Your task to perform on an android device: check battery use Image 0: 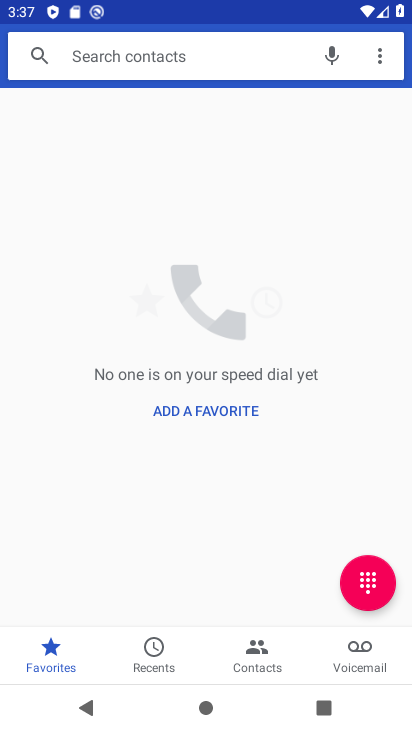
Step 0: press home button
Your task to perform on an android device: check battery use Image 1: 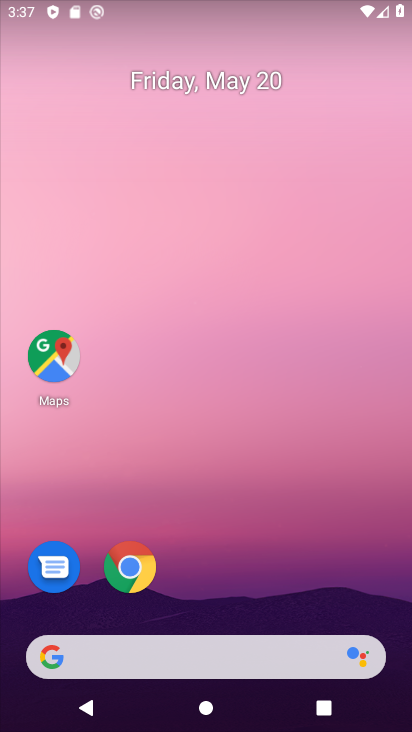
Step 1: drag from (253, 23) to (220, 660)
Your task to perform on an android device: check battery use Image 2: 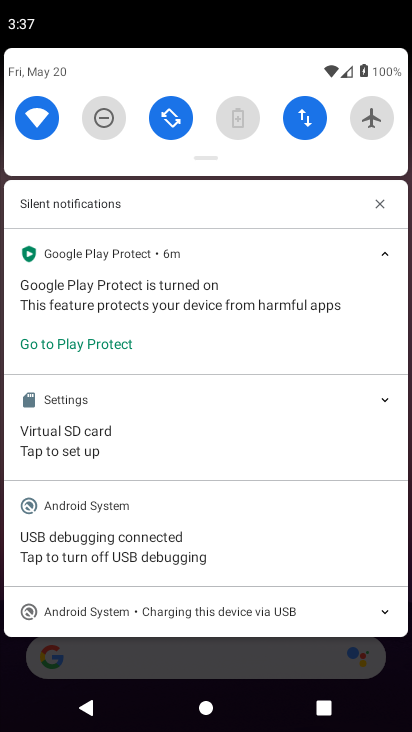
Step 2: drag from (268, 95) to (287, 604)
Your task to perform on an android device: check battery use Image 3: 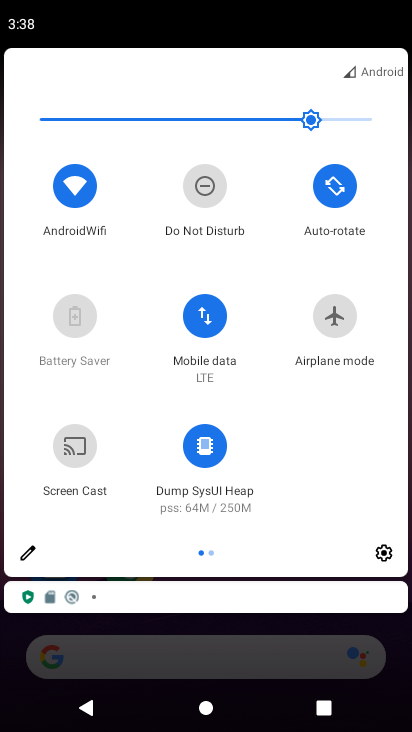
Step 3: click (380, 555)
Your task to perform on an android device: check battery use Image 4: 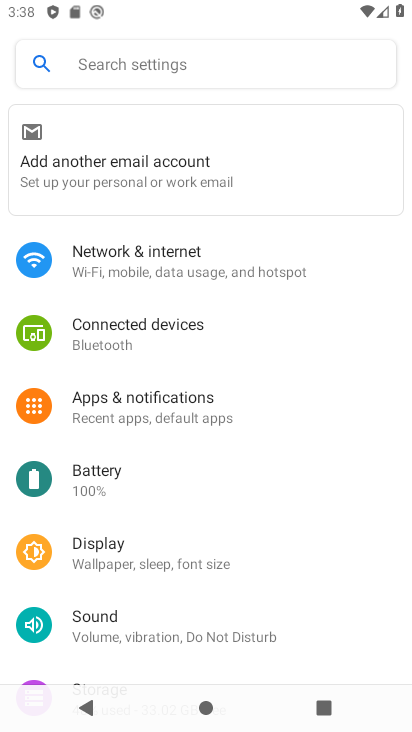
Step 4: click (119, 492)
Your task to perform on an android device: check battery use Image 5: 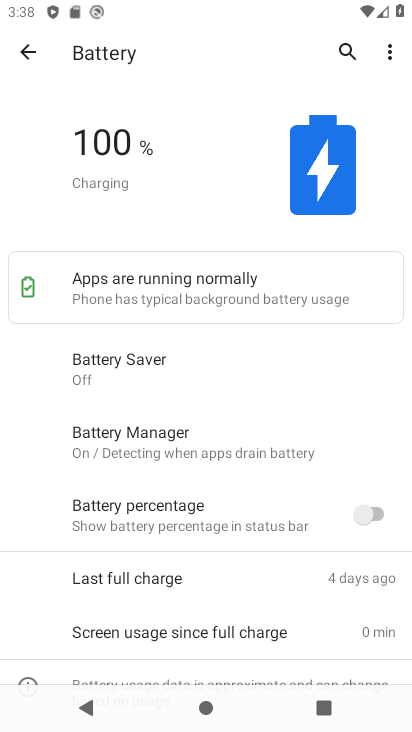
Step 5: click (396, 47)
Your task to perform on an android device: check battery use Image 6: 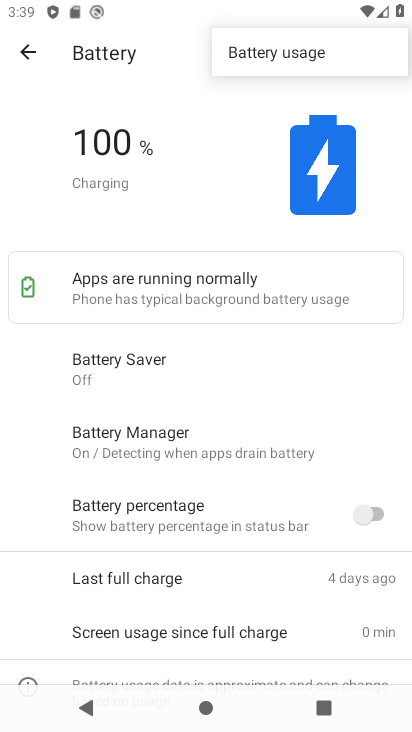
Step 6: click (287, 39)
Your task to perform on an android device: check battery use Image 7: 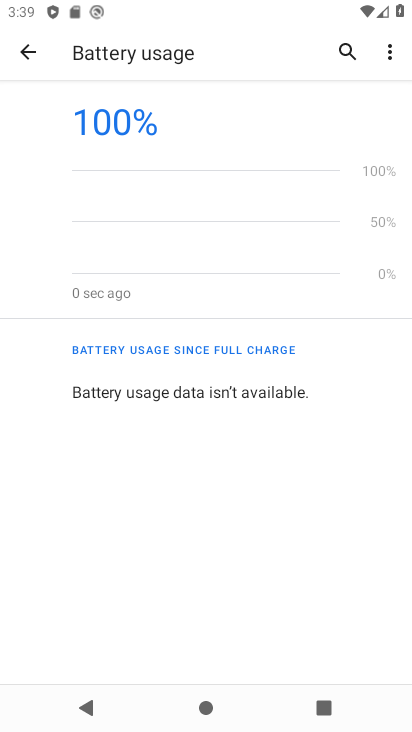
Step 7: task complete